Your task to perform on an android device: Open calendar and show me the first week of next month Image 0: 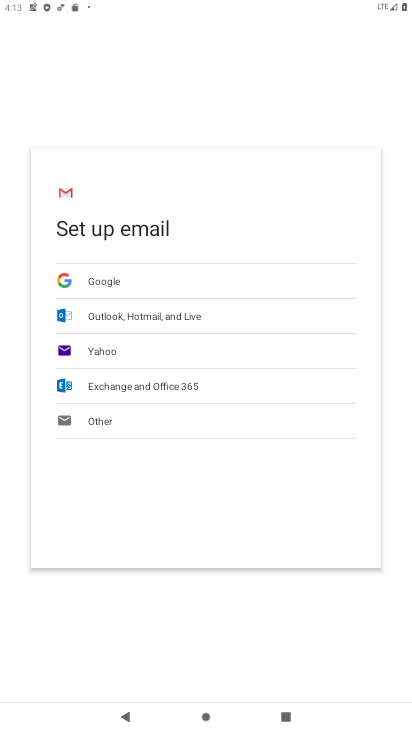
Step 0: press home button
Your task to perform on an android device: Open calendar and show me the first week of next month Image 1: 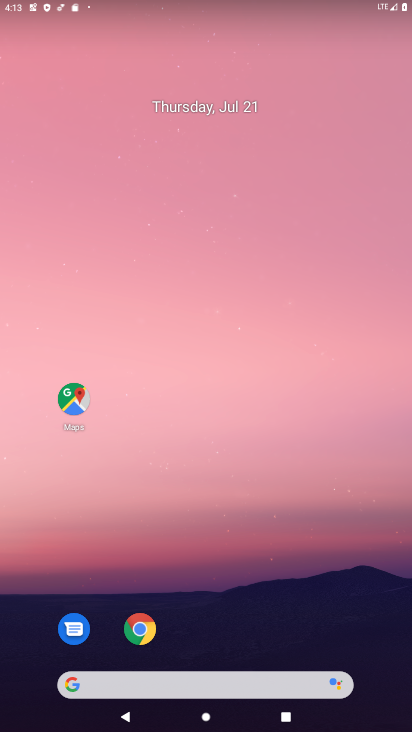
Step 1: drag from (348, 629) to (250, 151)
Your task to perform on an android device: Open calendar and show me the first week of next month Image 2: 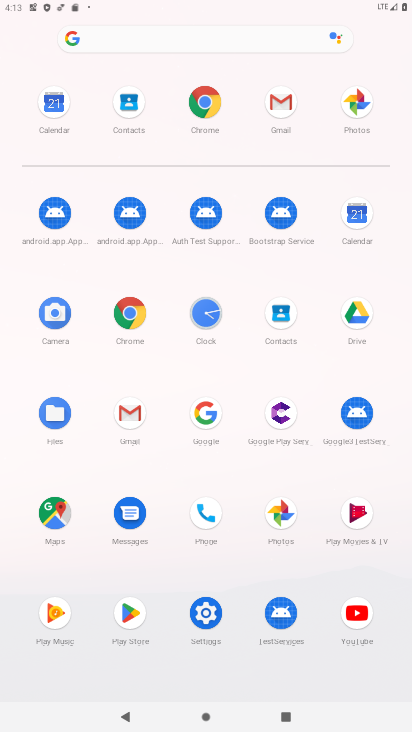
Step 2: click (346, 222)
Your task to perform on an android device: Open calendar and show me the first week of next month Image 3: 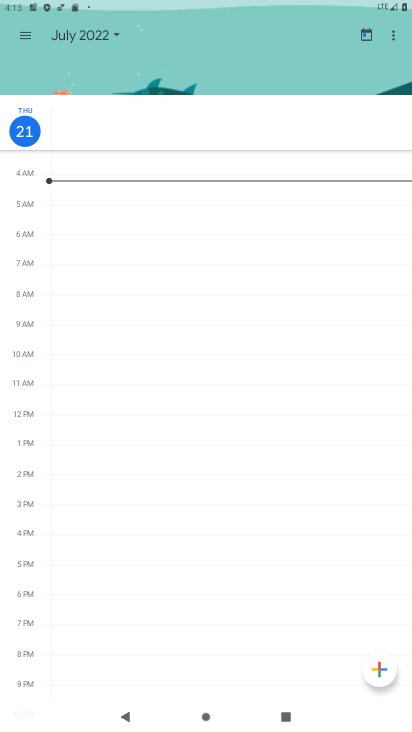
Step 3: click (29, 25)
Your task to perform on an android device: Open calendar and show me the first week of next month Image 4: 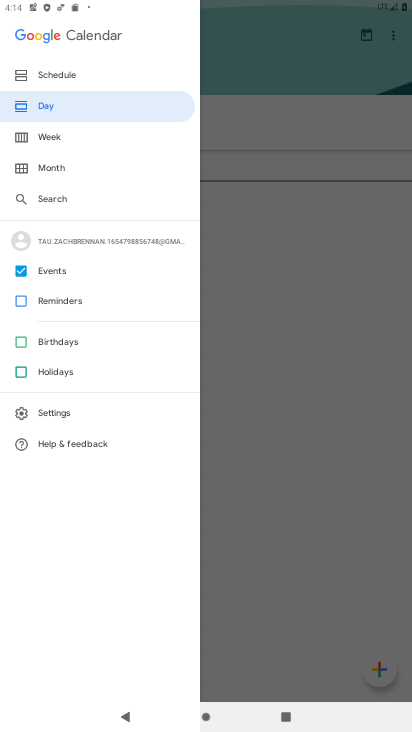
Step 4: click (51, 132)
Your task to perform on an android device: Open calendar and show me the first week of next month Image 5: 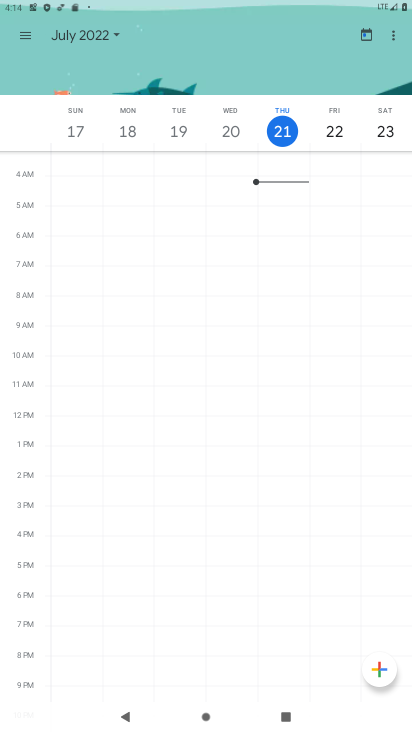
Step 5: click (99, 28)
Your task to perform on an android device: Open calendar and show me the first week of next month Image 6: 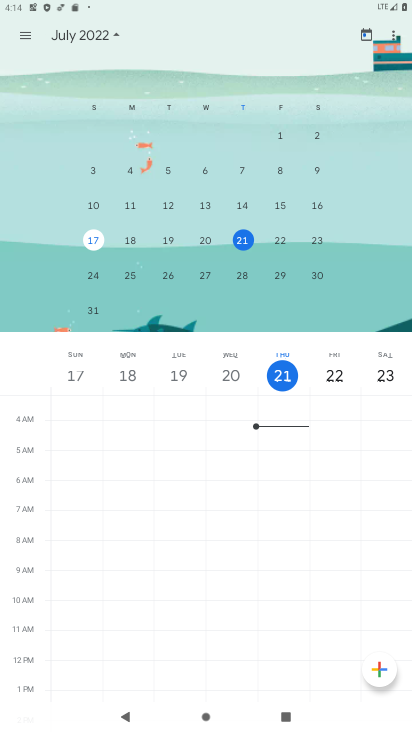
Step 6: task complete